Your task to perform on an android device: Clear the cart on newegg.com. Add "bose soundlink mini" to the cart on newegg.com, then select checkout. Image 0: 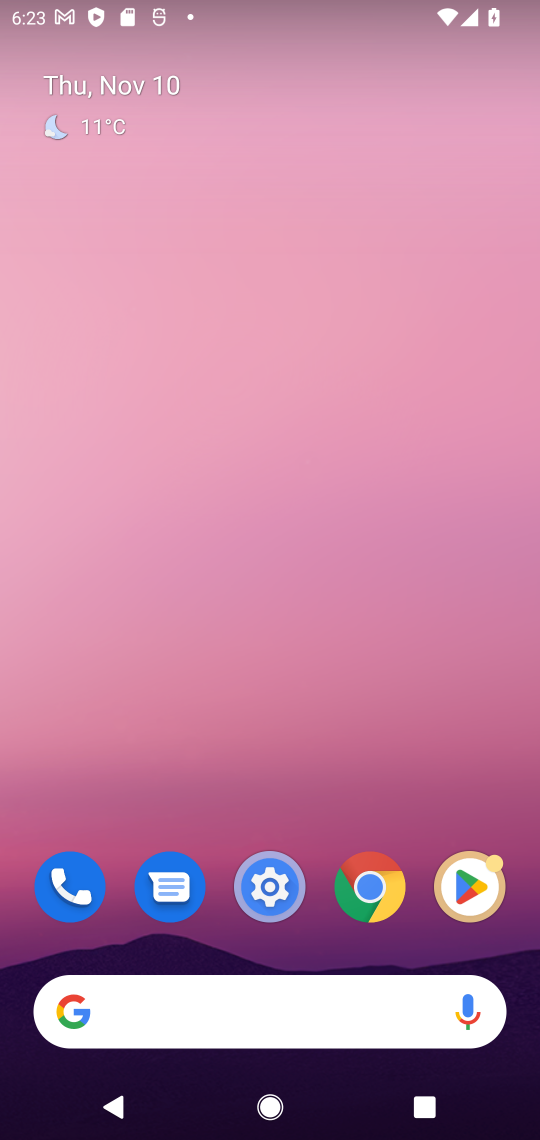
Step 0: click (225, 1007)
Your task to perform on an android device: Clear the cart on newegg.com. Add "bose soundlink mini" to the cart on newegg.com, then select checkout. Image 1: 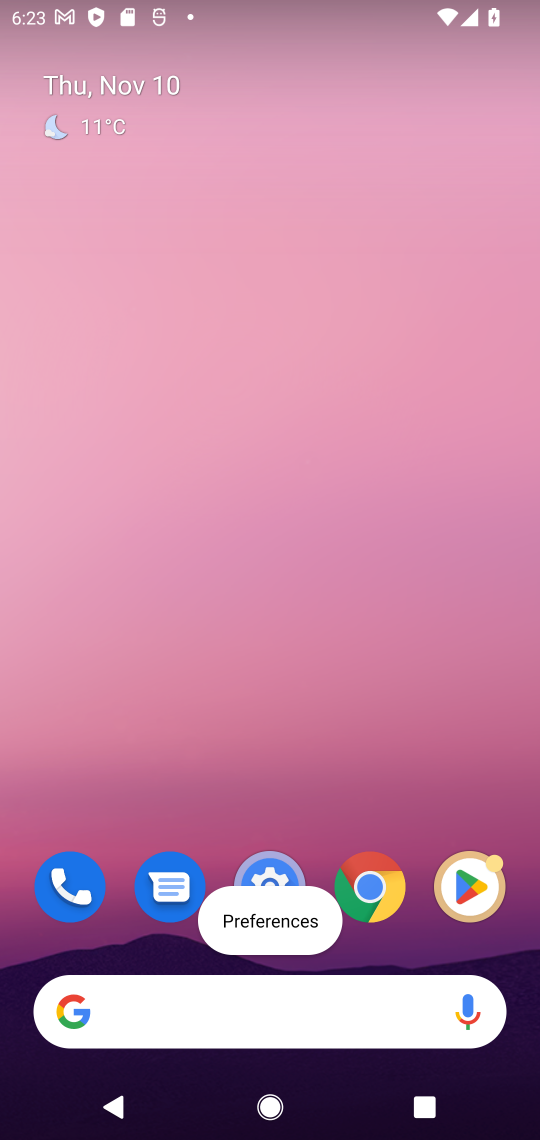
Step 1: click (76, 1008)
Your task to perform on an android device: Clear the cart on newegg.com. Add "bose soundlink mini" to the cart on newegg.com, then select checkout. Image 2: 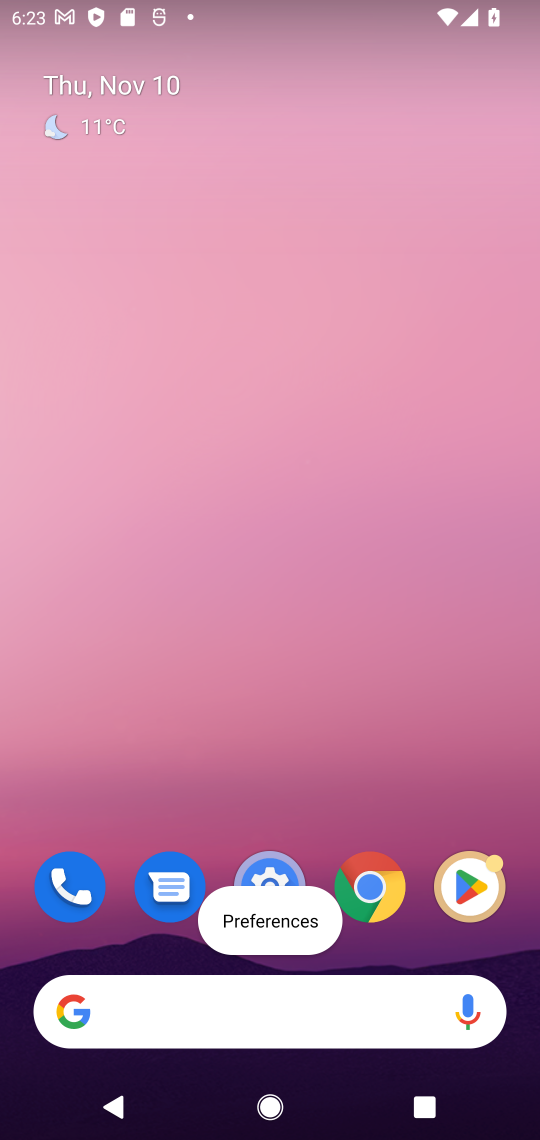
Step 2: click (79, 1013)
Your task to perform on an android device: Clear the cart on newegg.com. Add "bose soundlink mini" to the cart on newegg.com, then select checkout. Image 3: 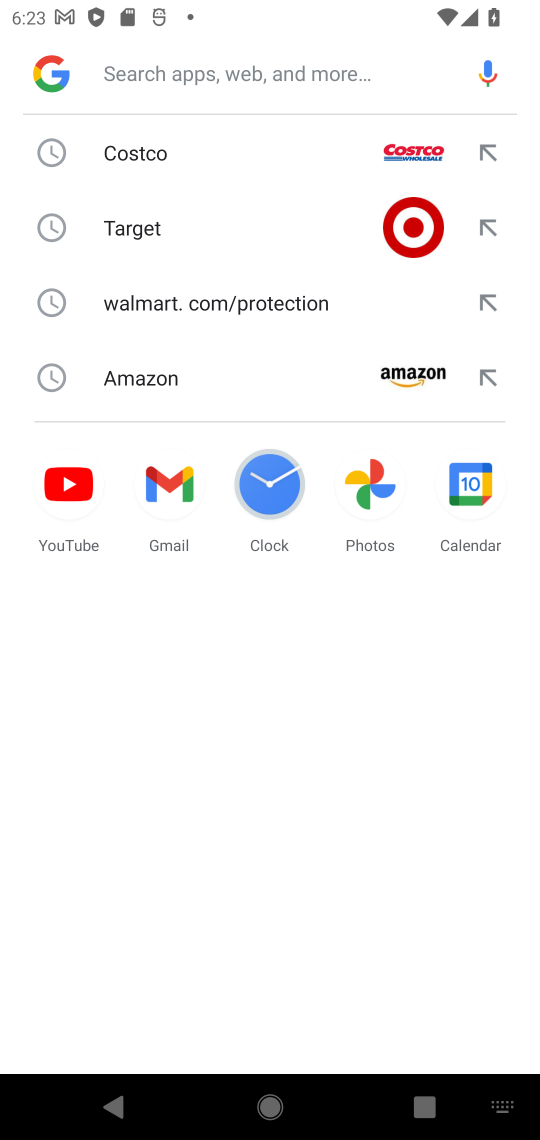
Step 3: type "newegg.com"
Your task to perform on an android device: Clear the cart on newegg.com. Add "bose soundlink mini" to the cart on newegg.com, then select checkout. Image 4: 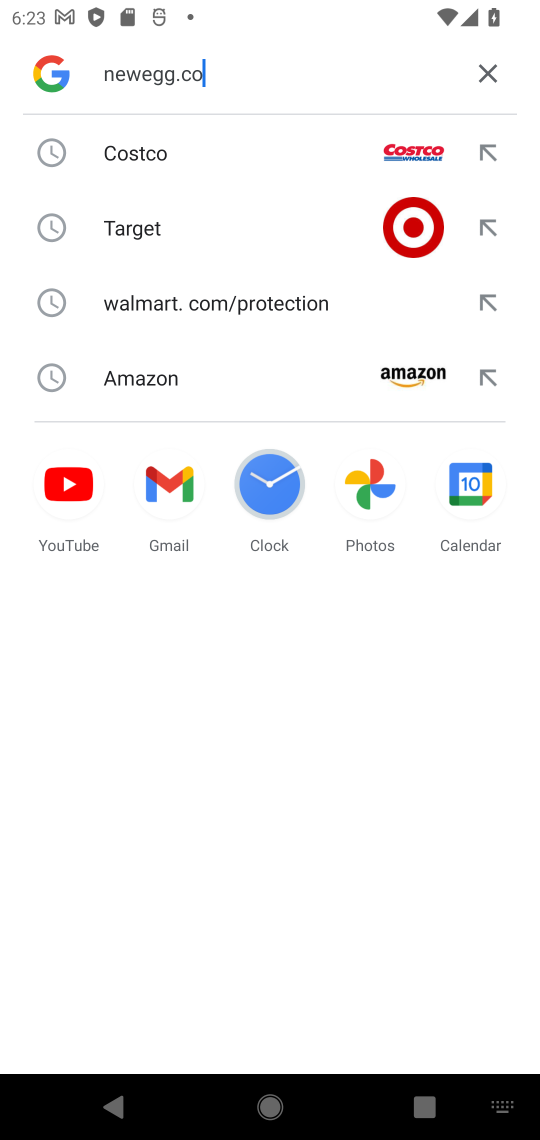
Step 4: type ""
Your task to perform on an android device: Clear the cart on newegg.com. Add "bose soundlink mini" to the cart on newegg.com, then select checkout. Image 5: 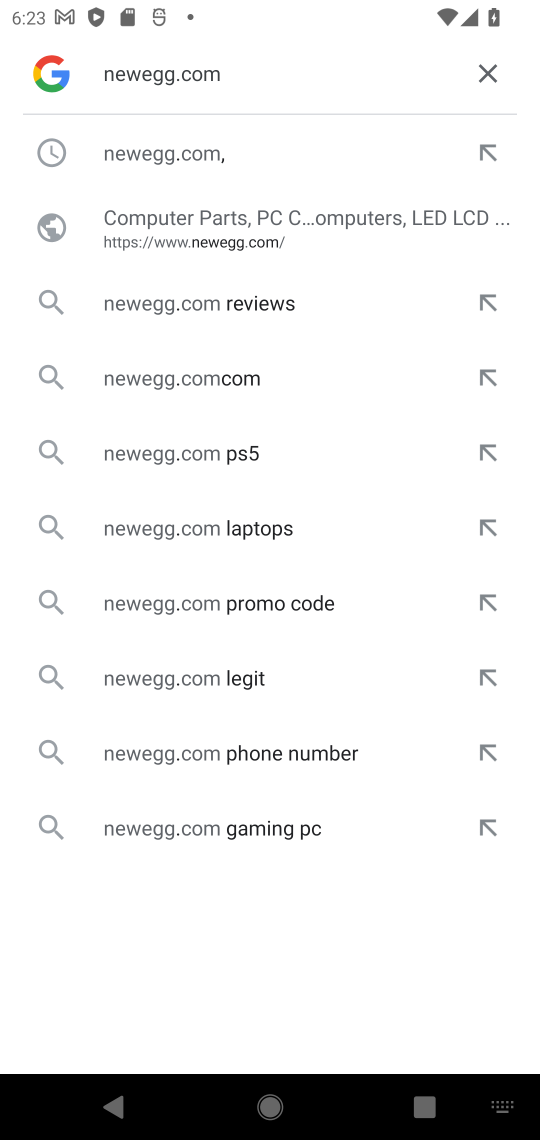
Step 5: click (180, 153)
Your task to perform on an android device: Clear the cart on newegg.com. Add "bose soundlink mini" to the cart on newegg.com, then select checkout. Image 6: 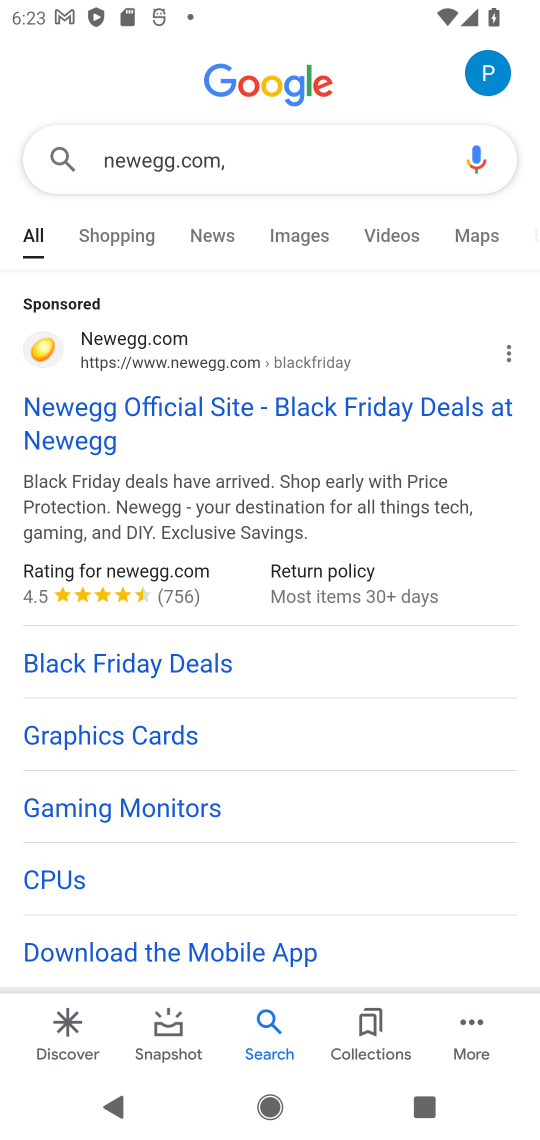
Step 6: click (166, 343)
Your task to perform on an android device: Clear the cart on newegg.com. Add "bose soundlink mini" to the cart on newegg.com, then select checkout. Image 7: 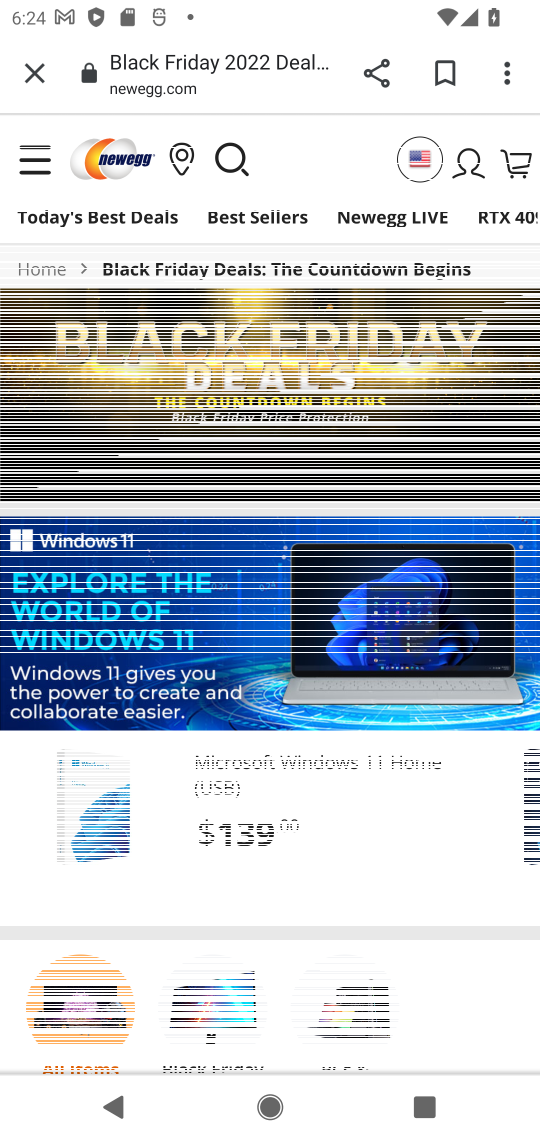
Step 7: click (516, 160)
Your task to perform on an android device: Clear the cart on newegg.com. Add "bose soundlink mini" to the cart on newegg.com, then select checkout. Image 8: 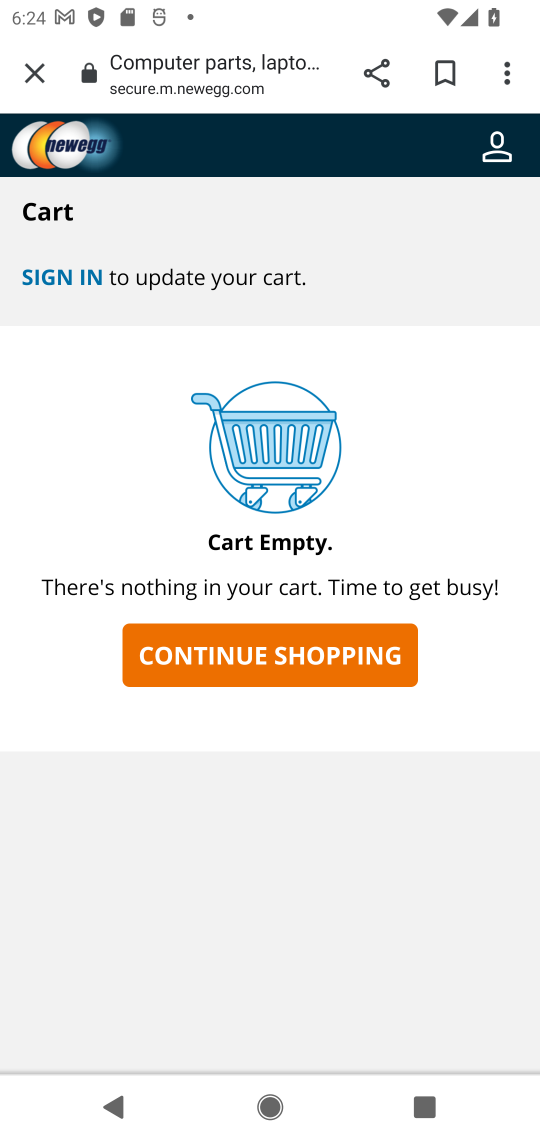
Step 8: press back button
Your task to perform on an android device: Clear the cart on newegg.com. Add "bose soundlink mini" to the cart on newegg.com, then select checkout. Image 9: 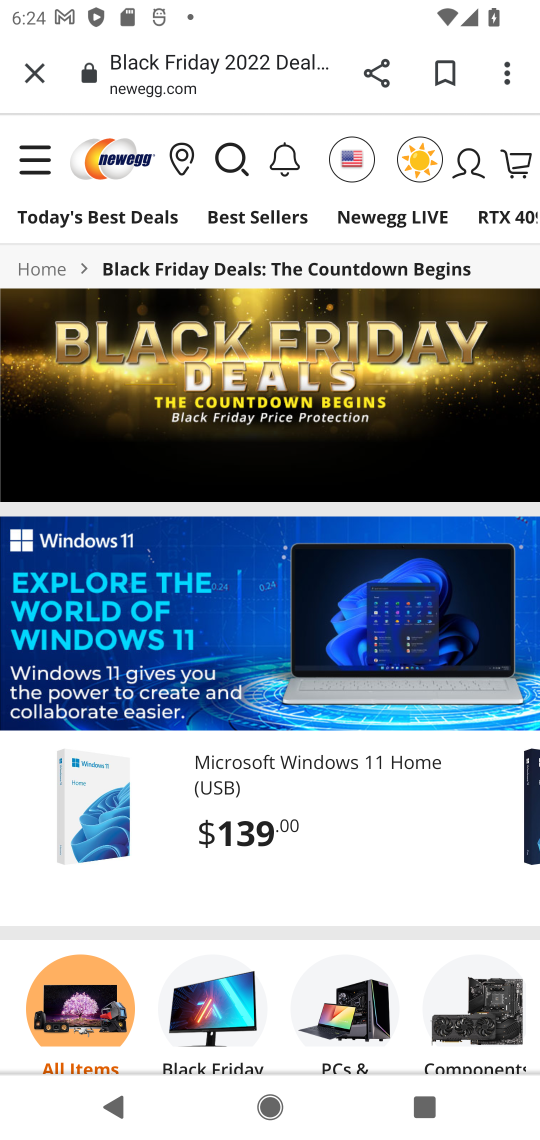
Step 9: click (236, 155)
Your task to perform on an android device: Clear the cart on newegg.com. Add "bose soundlink mini" to the cart on newegg.com, then select checkout. Image 10: 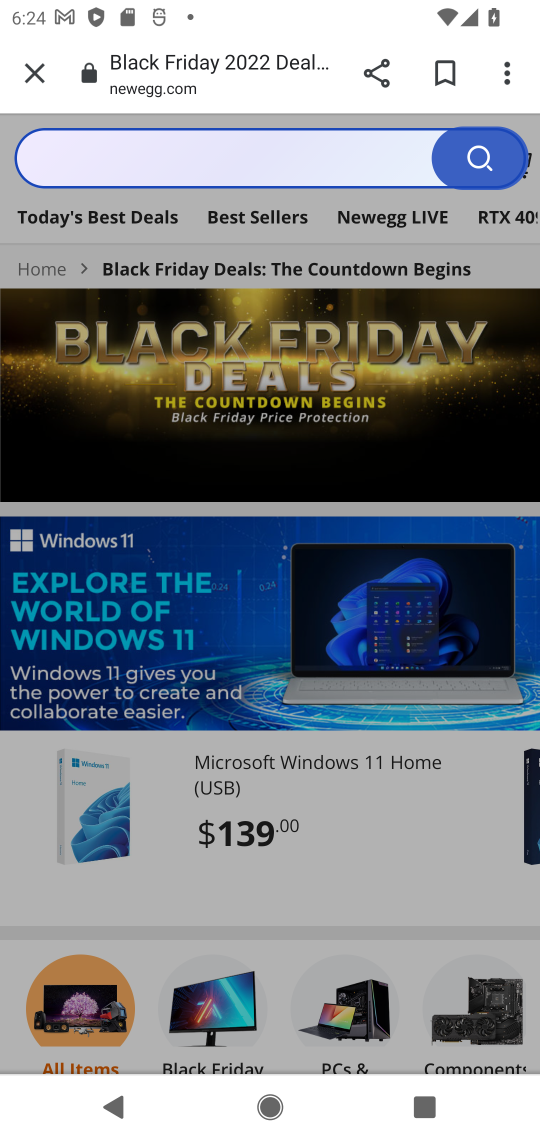
Step 10: click (69, 155)
Your task to perform on an android device: Clear the cart on newegg.com. Add "bose soundlink mini" to the cart on newegg.com, then select checkout. Image 11: 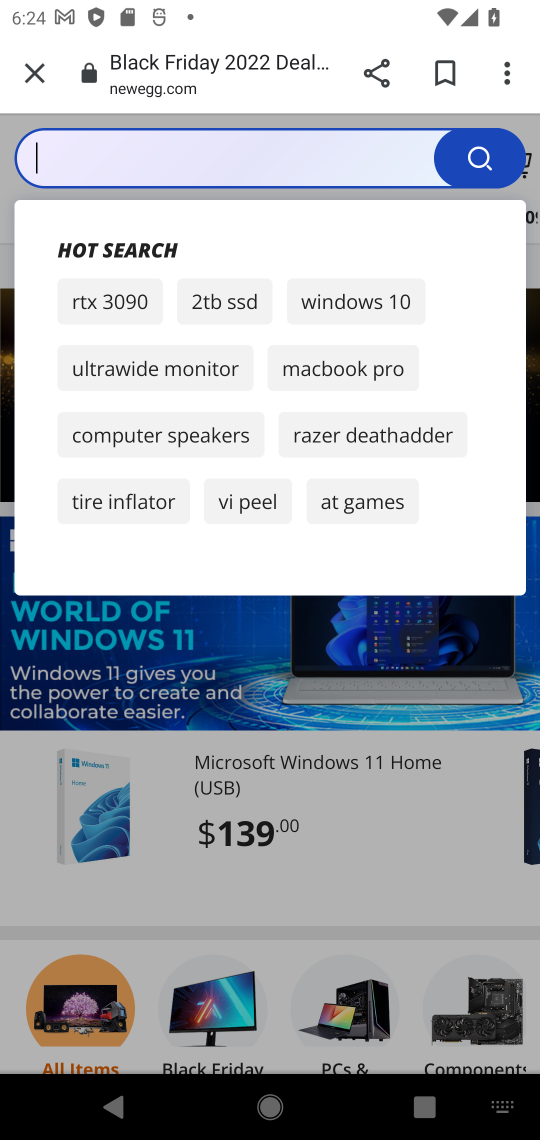
Step 11: type "bose soundlink mini"
Your task to perform on an android device: Clear the cart on newegg.com. Add "bose soundlink mini" to the cart on newegg.com, then select checkout. Image 12: 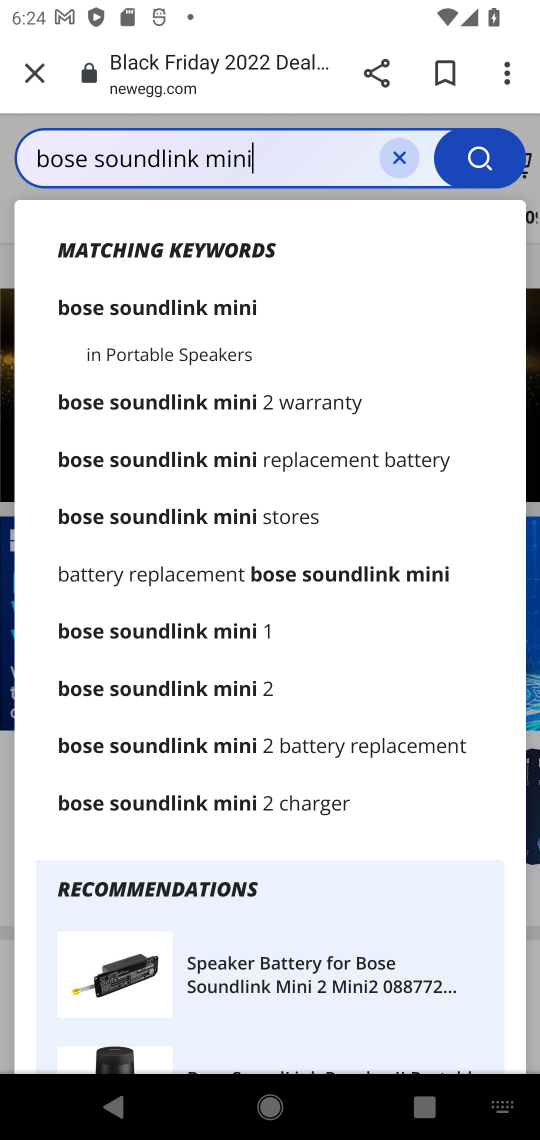
Step 12: click (164, 310)
Your task to perform on an android device: Clear the cart on newegg.com. Add "bose soundlink mini" to the cart on newegg.com, then select checkout. Image 13: 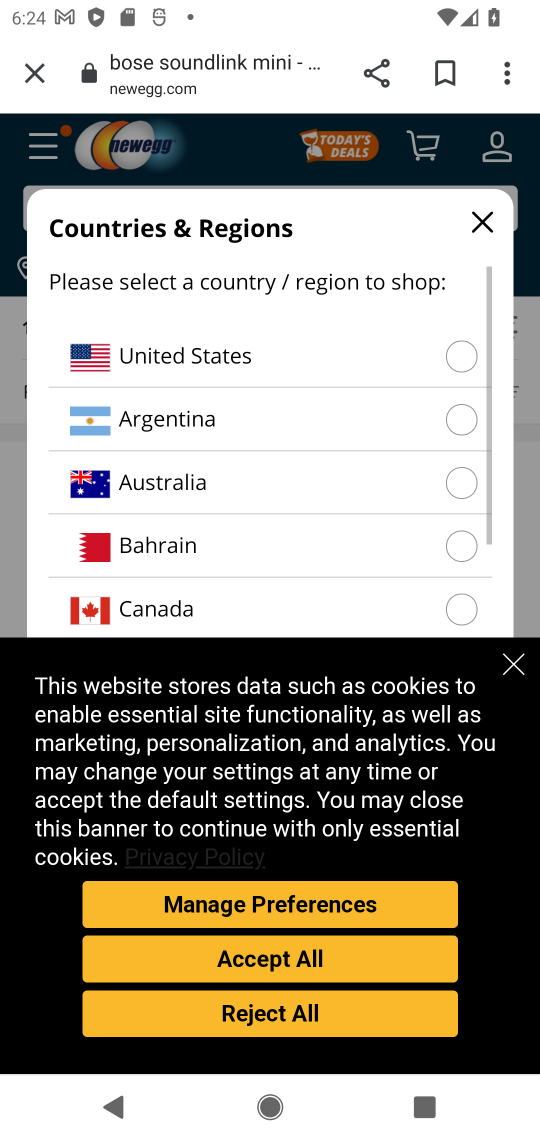
Step 13: click (238, 952)
Your task to perform on an android device: Clear the cart on newegg.com. Add "bose soundlink mini" to the cart on newegg.com, then select checkout. Image 14: 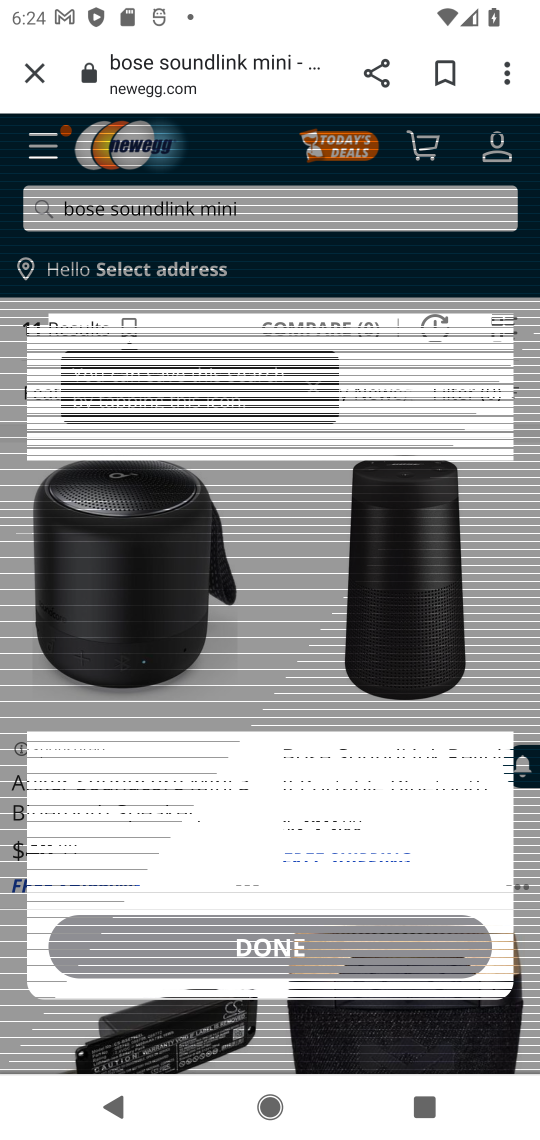
Step 14: click (457, 345)
Your task to perform on an android device: Clear the cart on newegg.com. Add "bose soundlink mini" to the cart on newegg.com, then select checkout. Image 15: 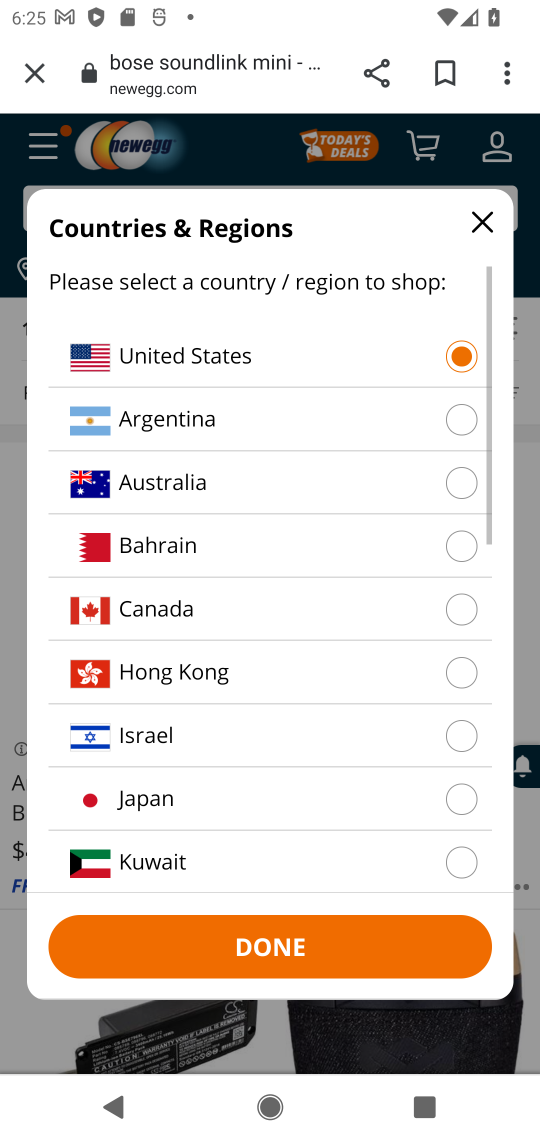
Step 15: click (288, 930)
Your task to perform on an android device: Clear the cart on newegg.com. Add "bose soundlink mini" to the cart on newegg.com, then select checkout. Image 16: 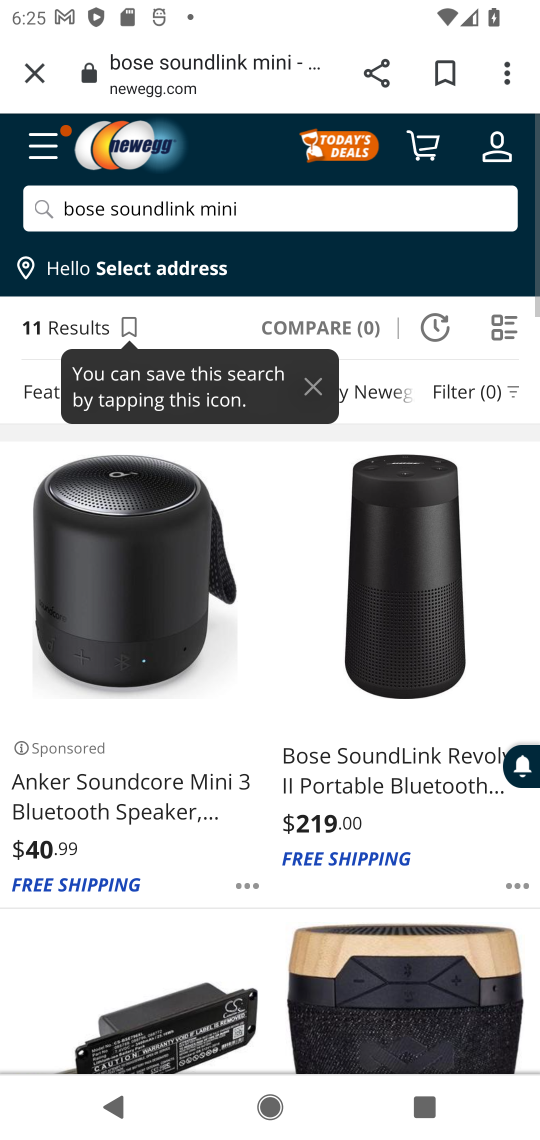
Step 16: click (123, 784)
Your task to perform on an android device: Clear the cart on newegg.com. Add "bose soundlink mini" to the cart on newegg.com, then select checkout. Image 17: 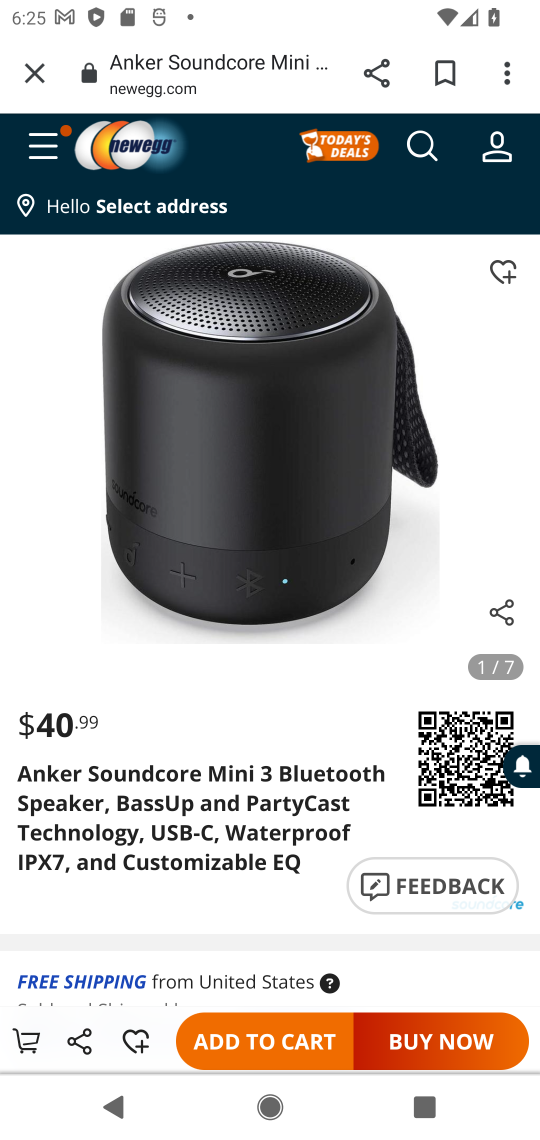
Step 17: click (263, 1036)
Your task to perform on an android device: Clear the cart on newegg.com. Add "bose soundlink mini" to the cart on newegg.com, then select checkout. Image 18: 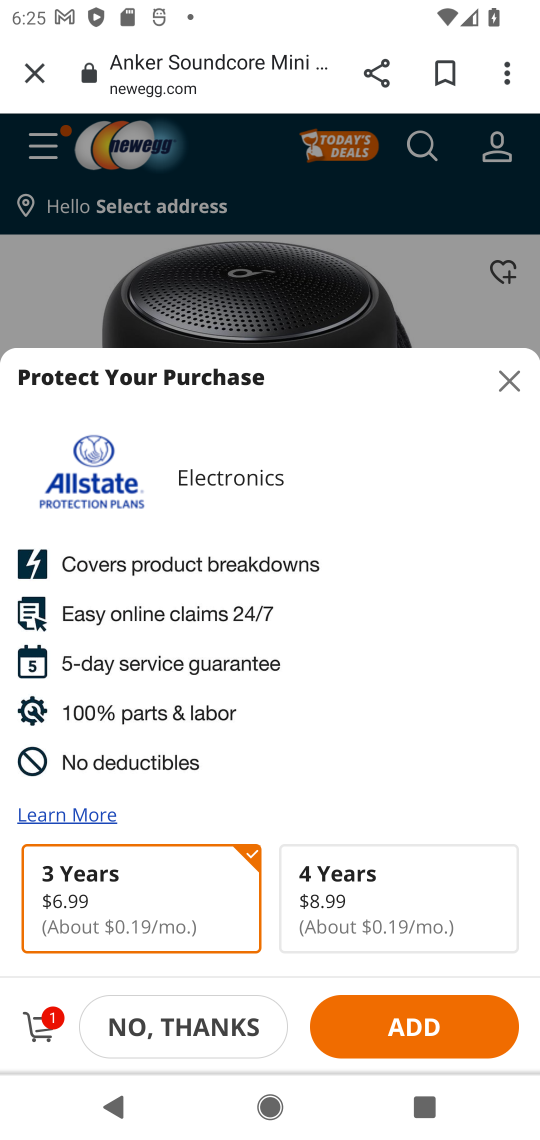
Step 18: click (46, 1012)
Your task to perform on an android device: Clear the cart on newegg.com. Add "bose soundlink mini" to the cart on newegg.com, then select checkout. Image 19: 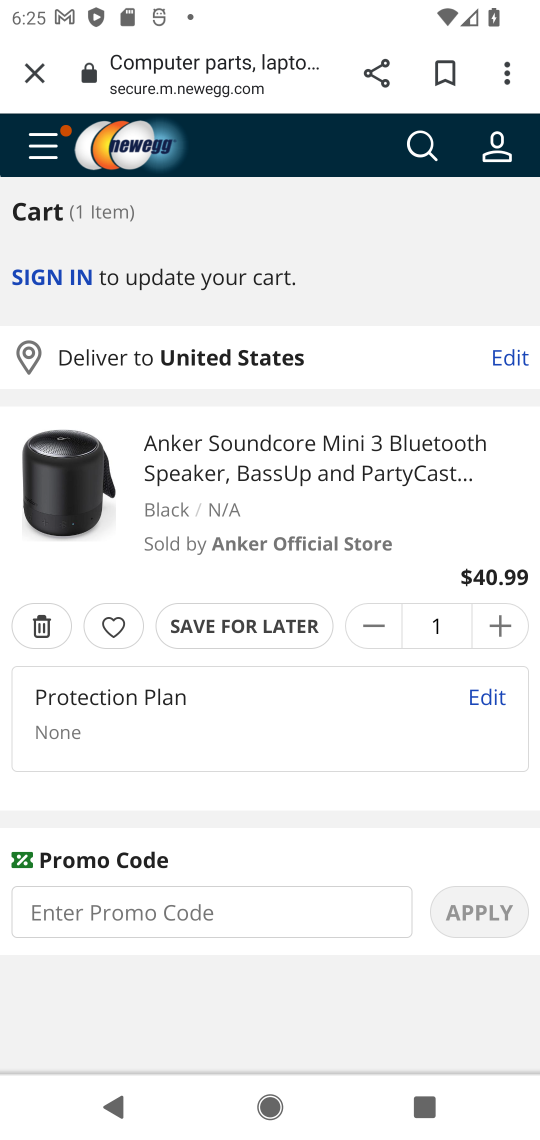
Step 19: click (281, 966)
Your task to perform on an android device: Clear the cart on newegg.com. Add "bose soundlink mini" to the cart on newegg.com, then select checkout. Image 20: 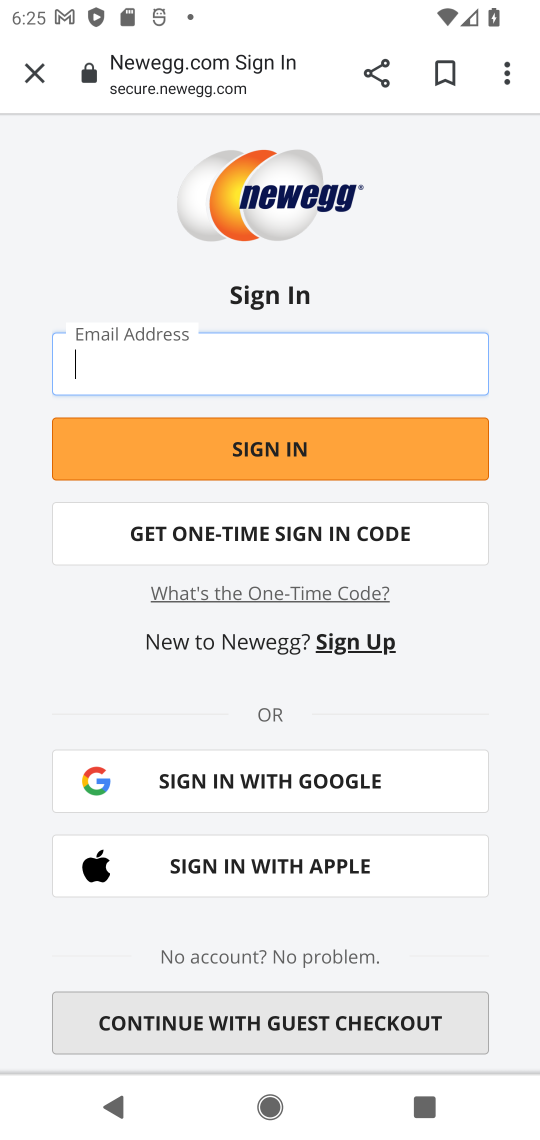
Step 20: task complete